Your task to perform on an android device: turn on javascript in the chrome app Image 0: 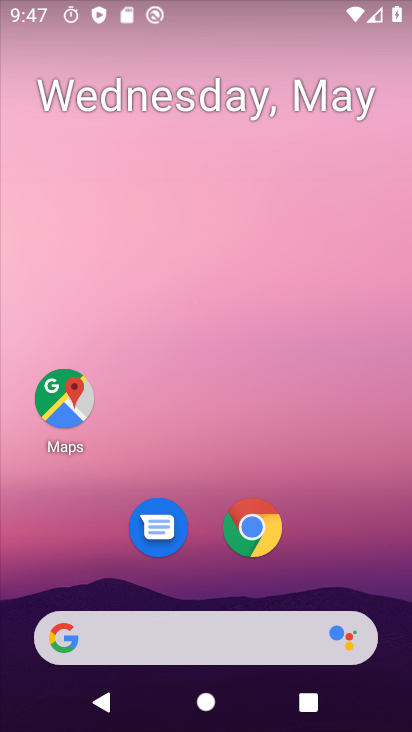
Step 0: click (270, 529)
Your task to perform on an android device: turn on javascript in the chrome app Image 1: 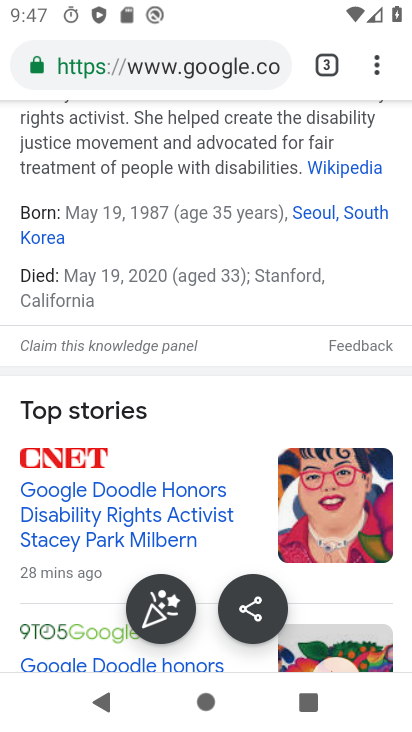
Step 1: drag from (375, 75) to (206, 569)
Your task to perform on an android device: turn on javascript in the chrome app Image 2: 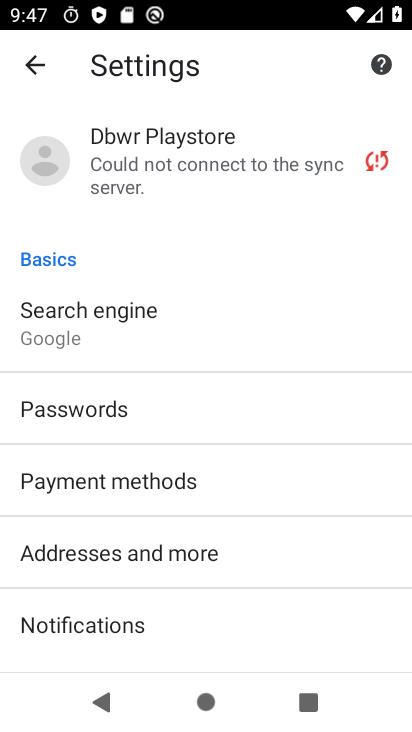
Step 2: drag from (277, 554) to (259, 159)
Your task to perform on an android device: turn on javascript in the chrome app Image 3: 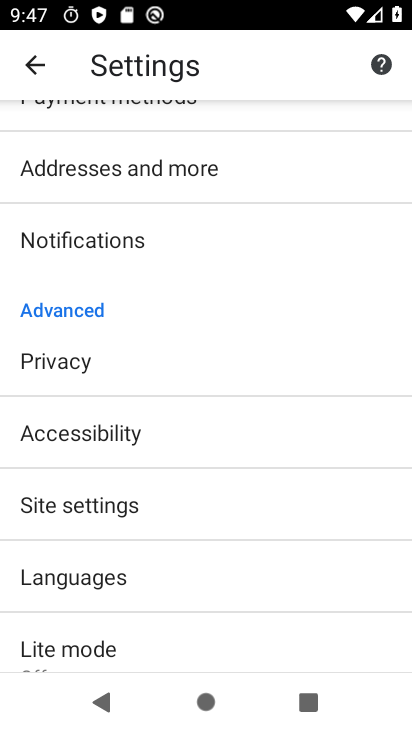
Step 3: click (131, 508)
Your task to perform on an android device: turn on javascript in the chrome app Image 4: 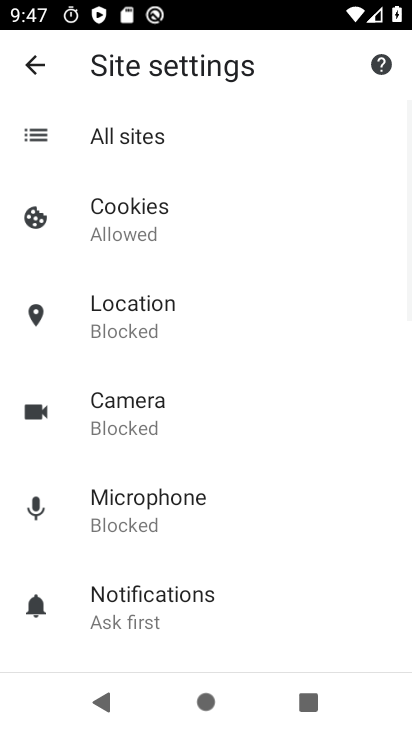
Step 4: drag from (284, 597) to (260, 271)
Your task to perform on an android device: turn on javascript in the chrome app Image 5: 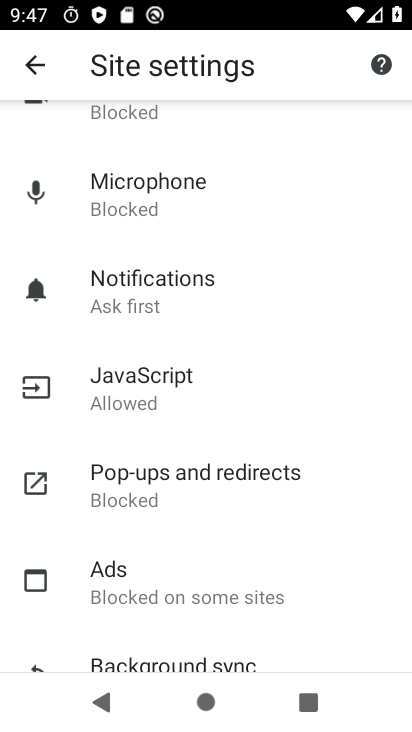
Step 5: click (115, 392)
Your task to perform on an android device: turn on javascript in the chrome app Image 6: 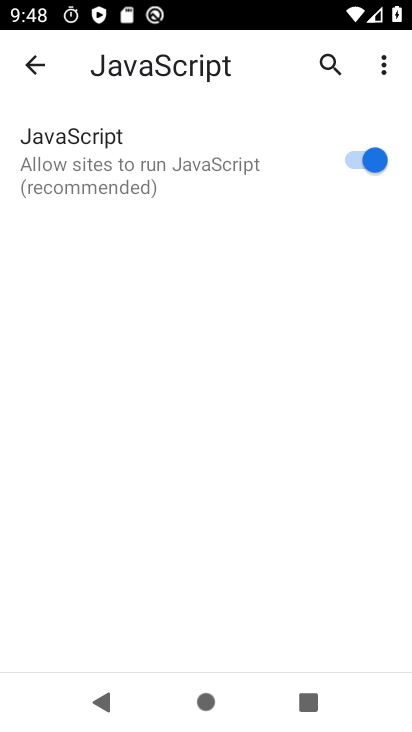
Step 6: task complete